Your task to perform on an android device: turn off location history Image 0: 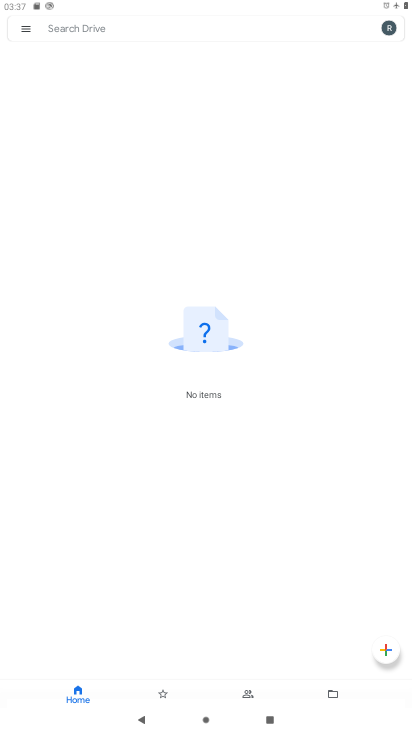
Step 0: press home button
Your task to perform on an android device: turn off location history Image 1: 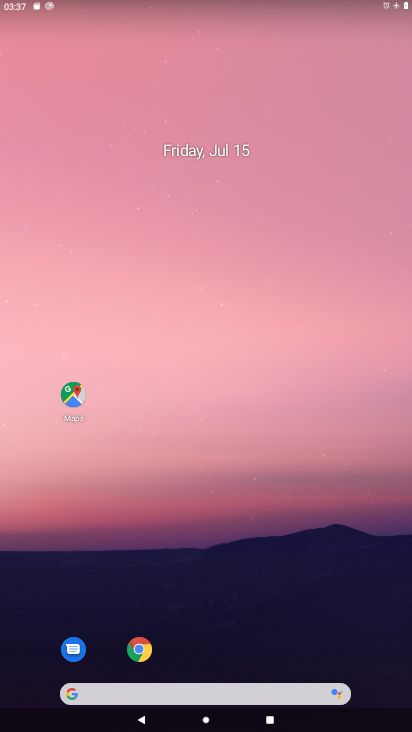
Step 1: click (73, 393)
Your task to perform on an android device: turn off location history Image 2: 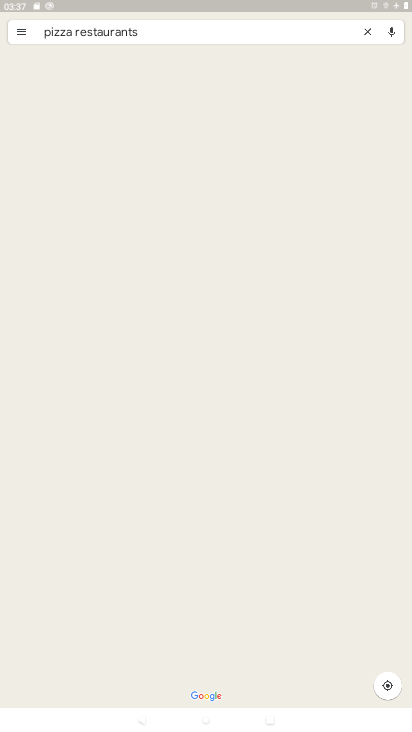
Step 2: click (19, 31)
Your task to perform on an android device: turn off location history Image 3: 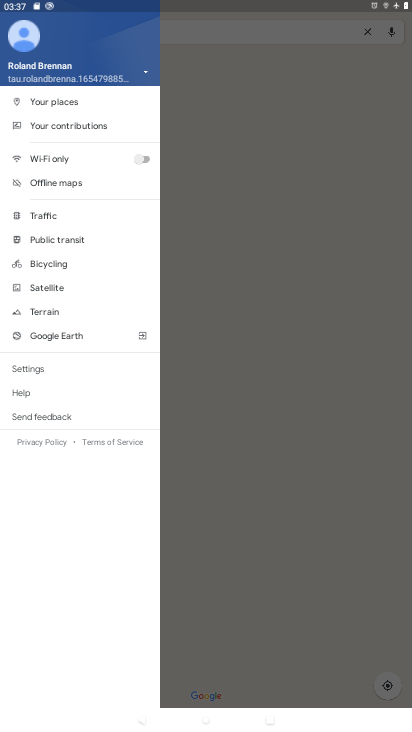
Step 3: click (35, 366)
Your task to perform on an android device: turn off location history Image 4: 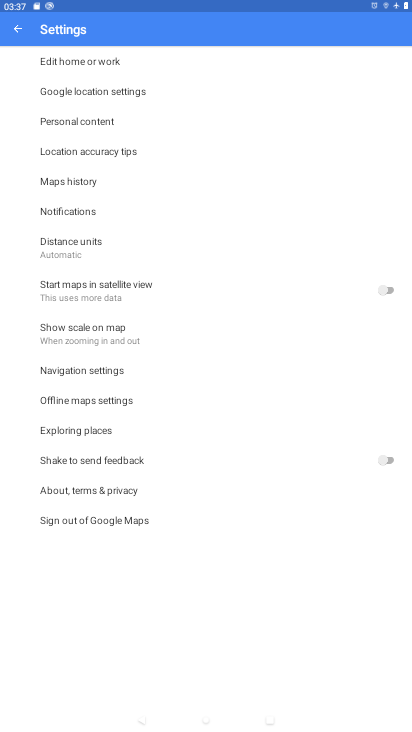
Step 4: click (81, 120)
Your task to perform on an android device: turn off location history Image 5: 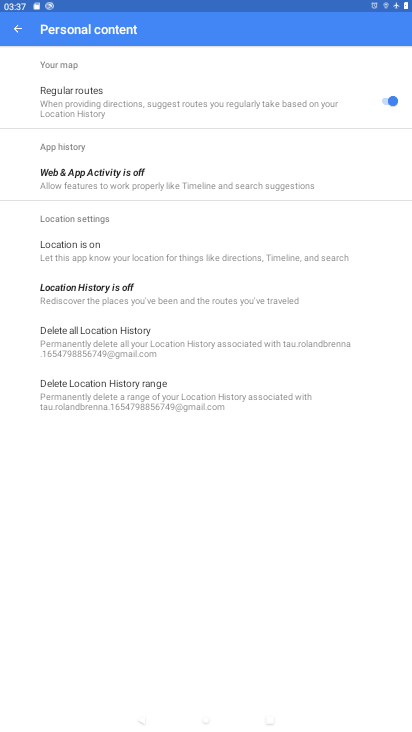
Step 5: task complete